Your task to perform on an android device: Open Google Chrome and click the shortcut for Amazon.com Image 0: 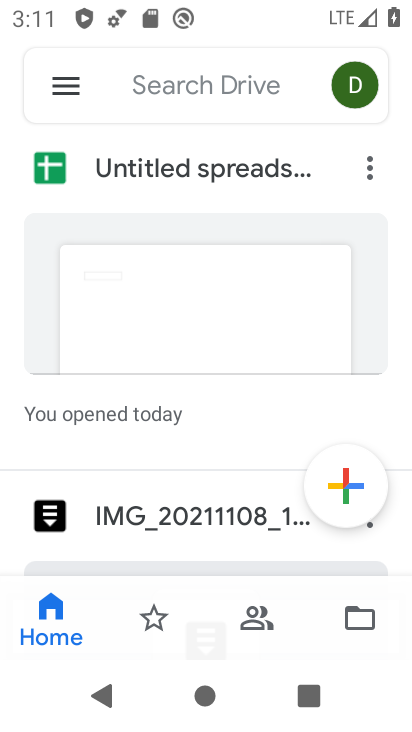
Step 0: press home button
Your task to perform on an android device: Open Google Chrome and click the shortcut for Amazon.com Image 1: 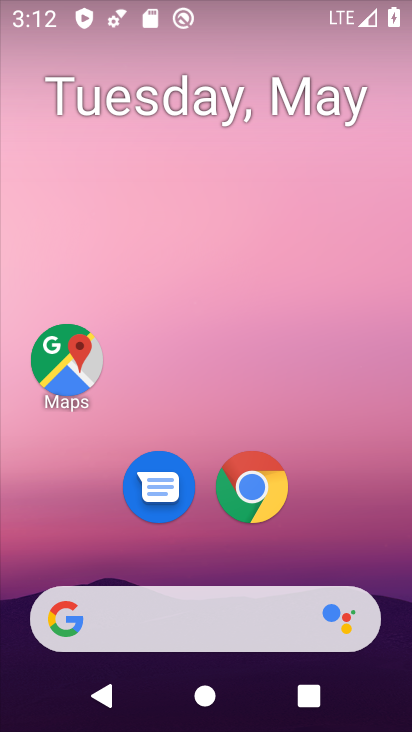
Step 1: click (252, 485)
Your task to perform on an android device: Open Google Chrome and click the shortcut for Amazon.com Image 2: 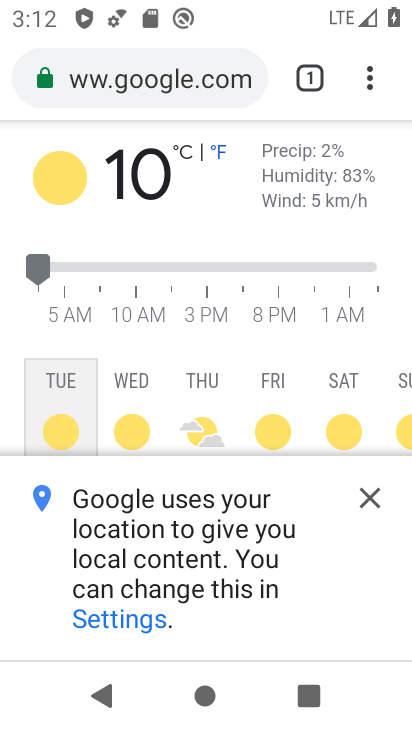
Step 2: click (196, 81)
Your task to perform on an android device: Open Google Chrome and click the shortcut for Amazon.com Image 3: 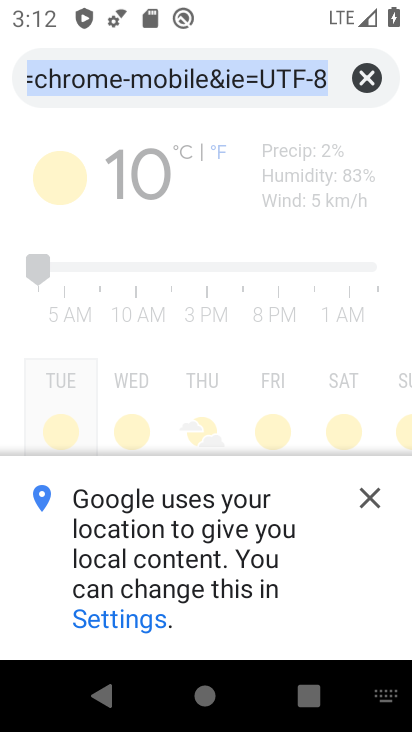
Step 3: click (360, 67)
Your task to perform on an android device: Open Google Chrome and click the shortcut for Amazon.com Image 4: 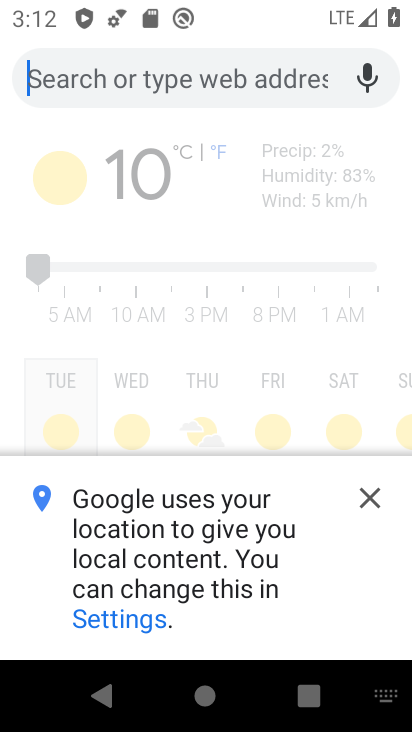
Step 4: type "amazon.com"
Your task to perform on an android device: Open Google Chrome and click the shortcut for Amazon.com Image 5: 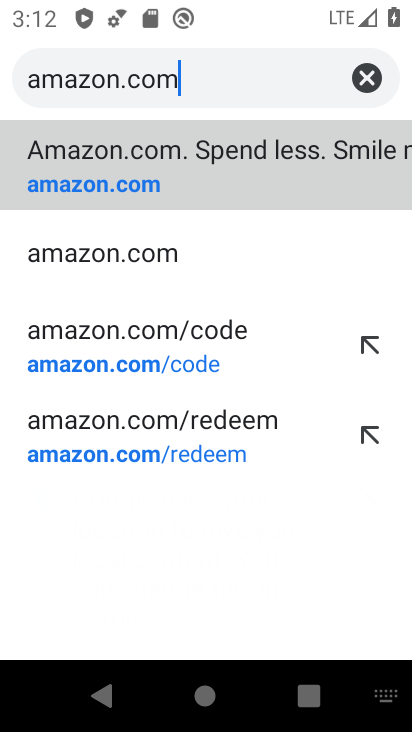
Step 5: click (125, 188)
Your task to perform on an android device: Open Google Chrome and click the shortcut for Amazon.com Image 6: 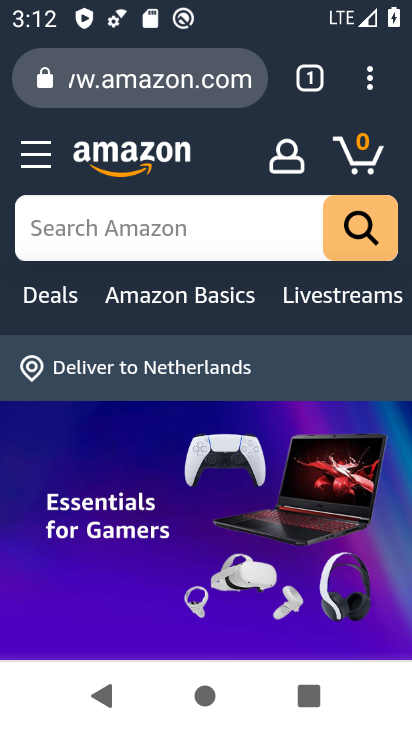
Step 6: task complete